Your task to perform on an android device: Open settings Image 0: 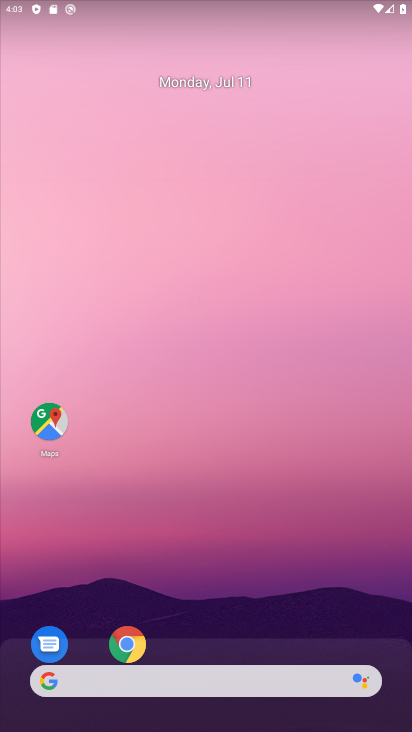
Step 0: drag from (103, 482) to (189, 74)
Your task to perform on an android device: Open settings Image 1: 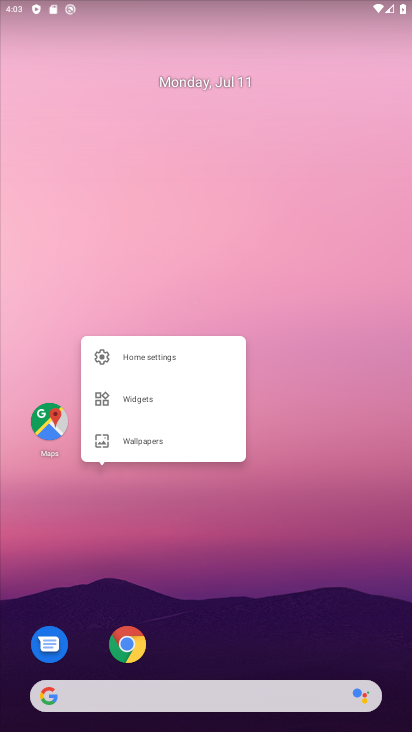
Step 1: drag from (12, 700) to (182, 69)
Your task to perform on an android device: Open settings Image 2: 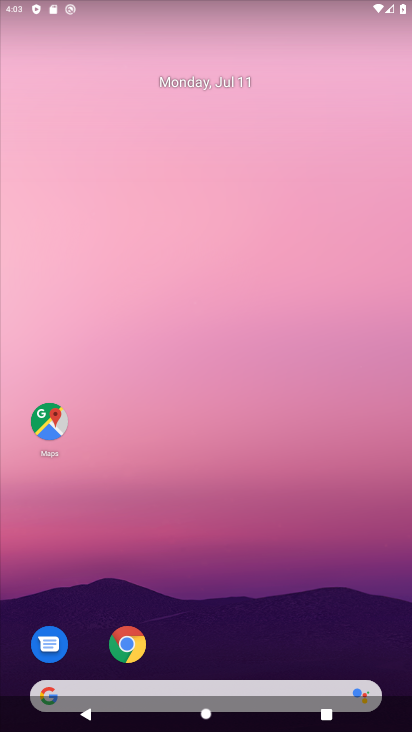
Step 2: drag from (44, 612) to (162, 1)
Your task to perform on an android device: Open settings Image 3: 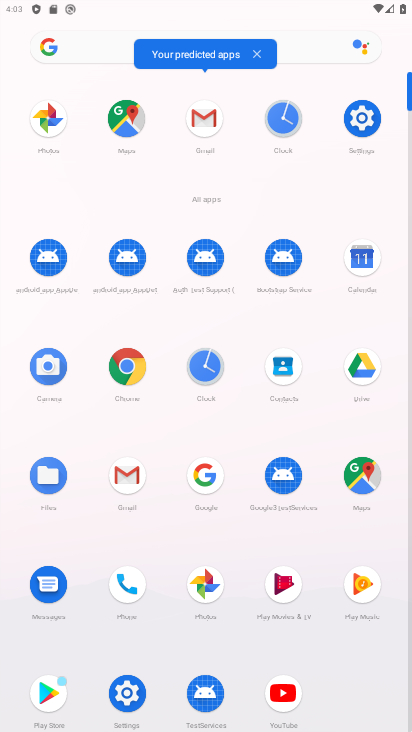
Step 3: click (119, 695)
Your task to perform on an android device: Open settings Image 4: 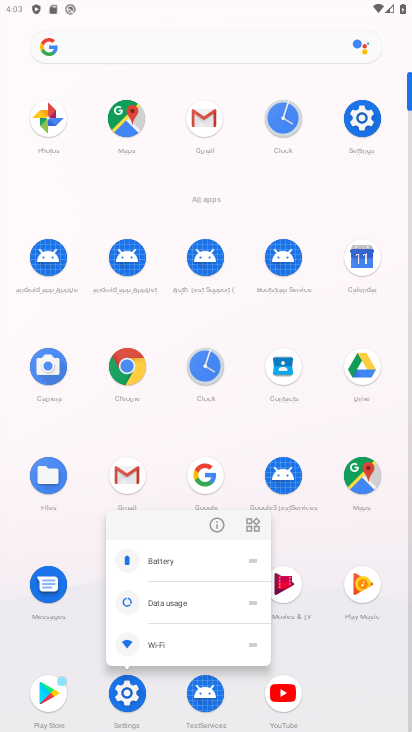
Step 4: click (110, 709)
Your task to perform on an android device: Open settings Image 5: 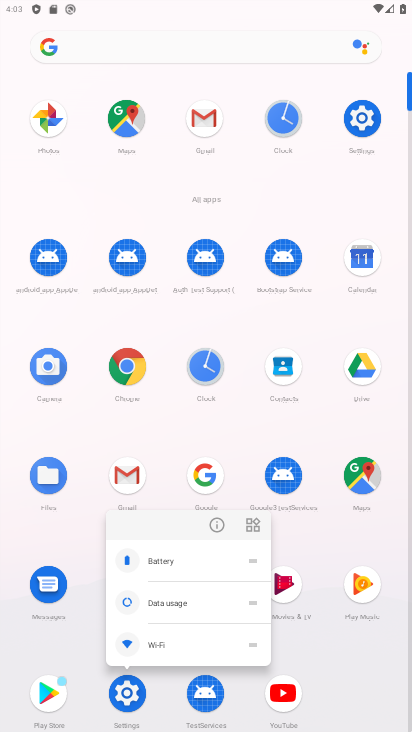
Step 5: click (120, 689)
Your task to perform on an android device: Open settings Image 6: 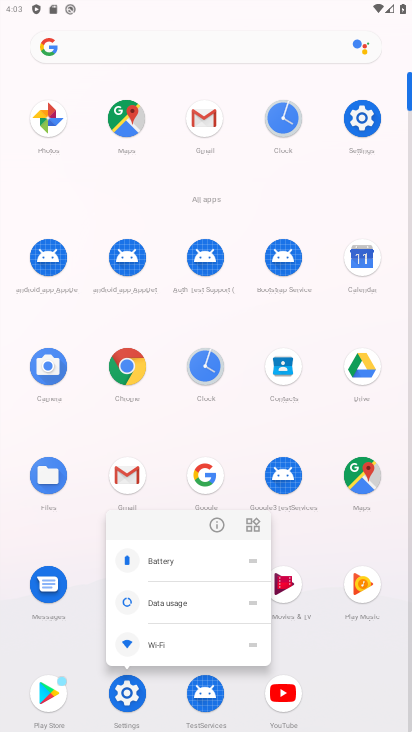
Step 6: click (120, 685)
Your task to perform on an android device: Open settings Image 7: 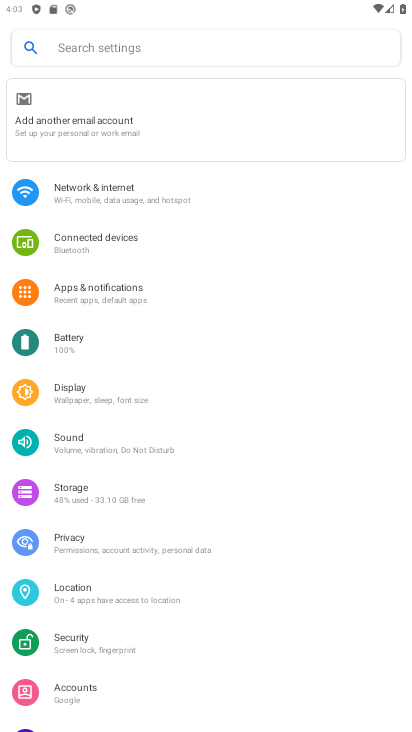
Step 7: task complete